Your task to perform on an android device: Open Amazon Image 0: 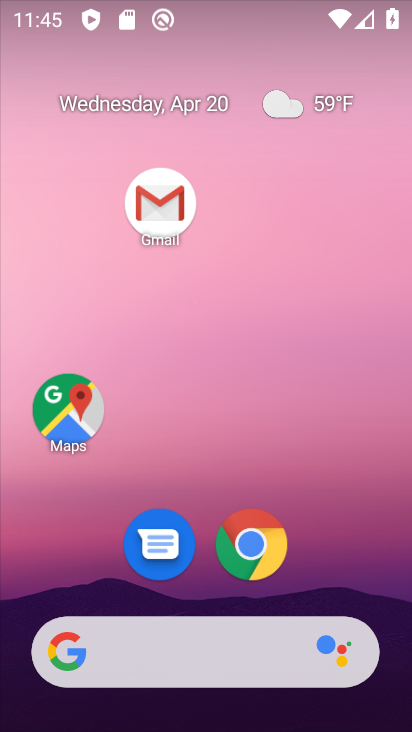
Step 0: click (272, 549)
Your task to perform on an android device: Open Amazon Image 1: 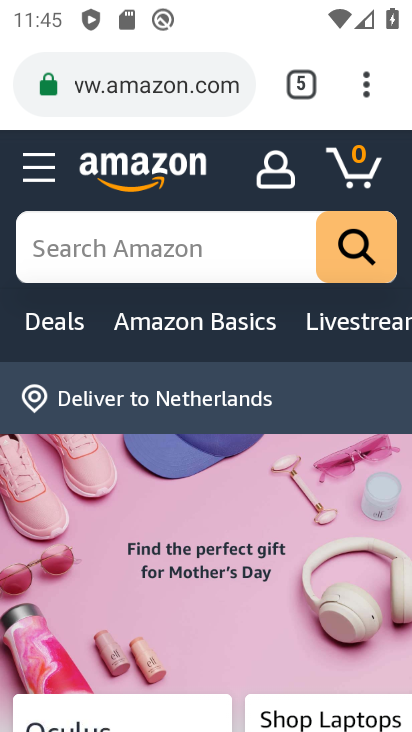
Step 1: task complete